Your task to perform on an android device: Go to location settings Image 0: 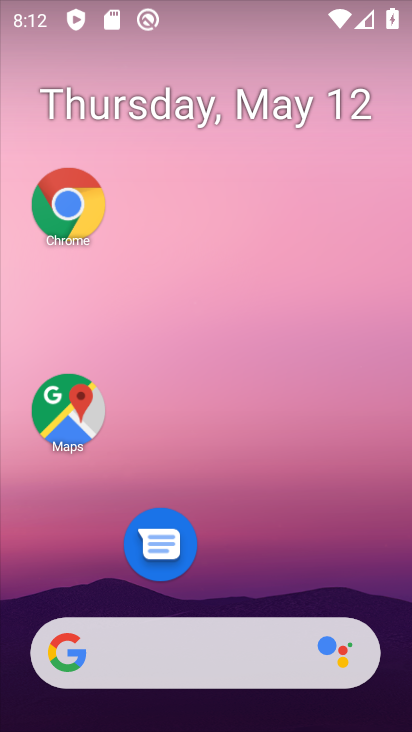
Step 0: drag from (215, 586) to (329, 22)
Your task to perform on an android device: Go to location settings Image 1: 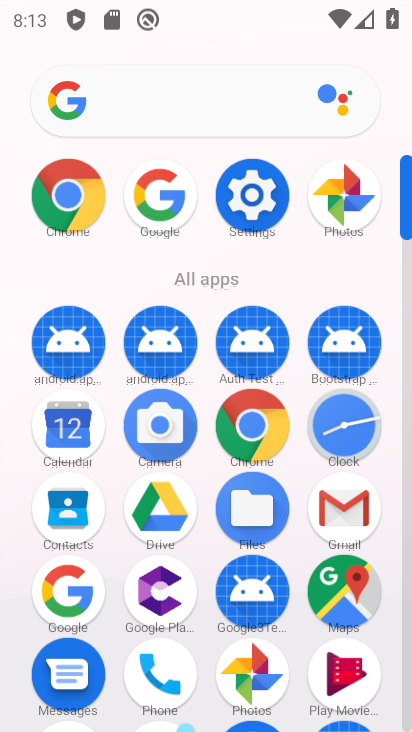
Step 1: click (248, 191)
Your task to perform on an android device: Go to location settings Image 2: 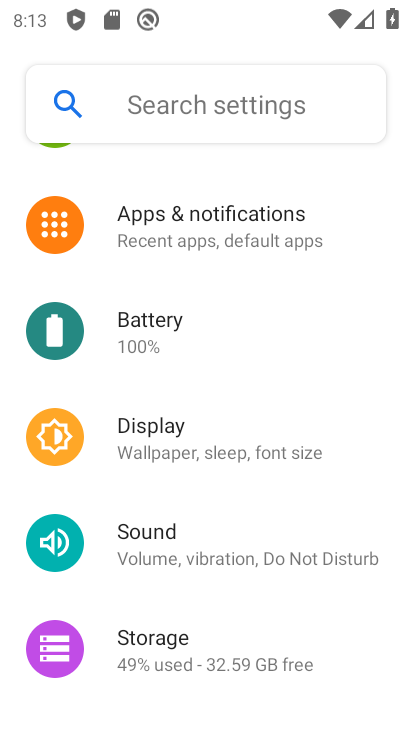
Step 2: drag from (246, 580) to (227, 90)
Your task to perform on an android device: Go to location settings Image 3: 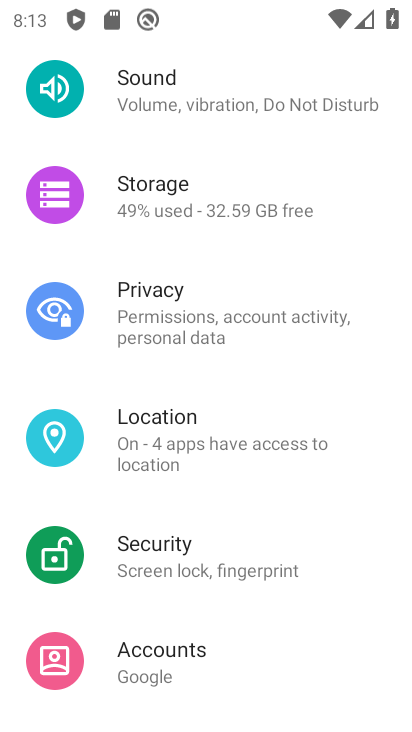
Step 3: drag from (295, 511) to (268, 293)
Your task to perform on an android device: Go to location settings Image 4: 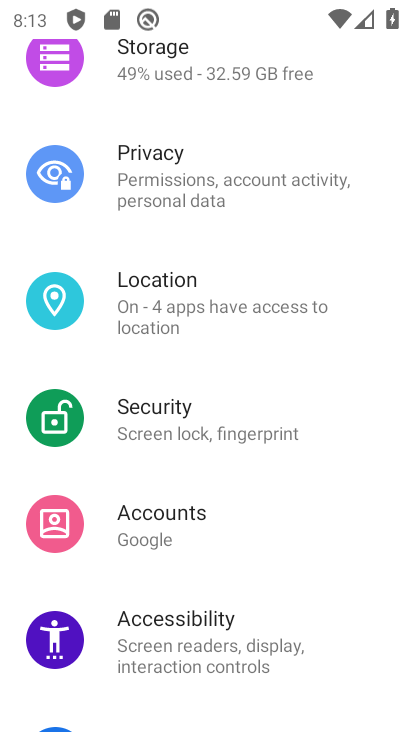
Step 4: click (156, 299)
Your task to perform on an android device: Go to location settings Image 5: 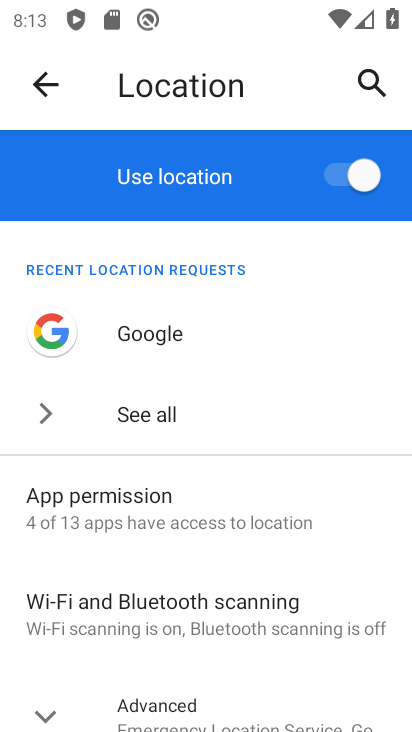
Step 5: task complete